Your task to perform on an android device: Open Reddit.com Image 0: 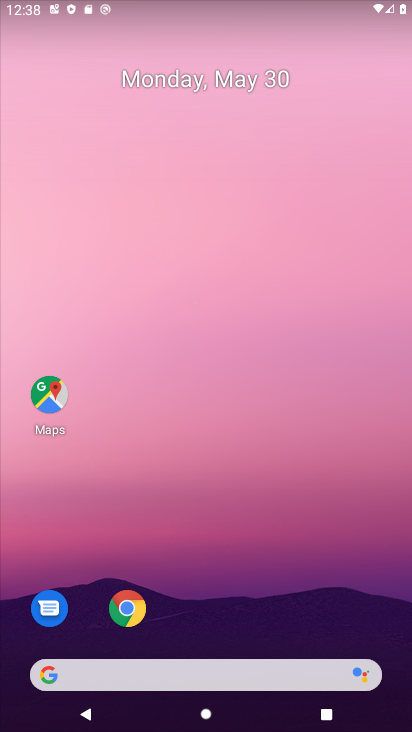
Step 0: click (133, 597)
Your task to perform on an android device: Open Reddit.com Image 1: 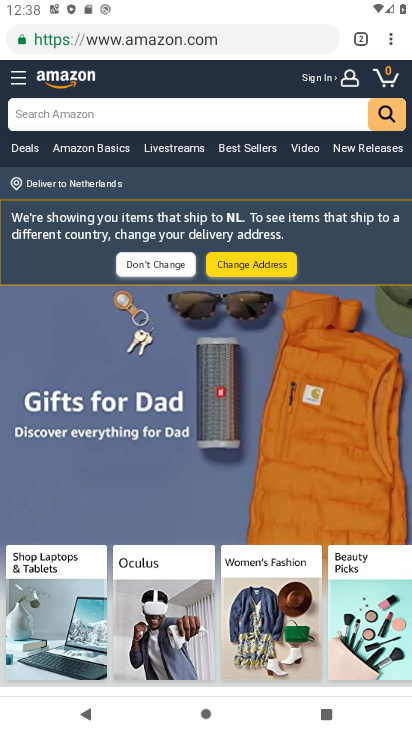
Step 1: click (354, 28)
Your task to perform on an android device: Open Reddit.com Image 2: 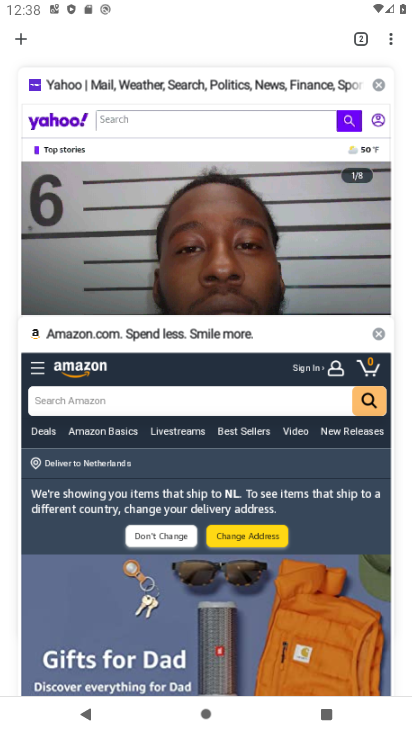
Step 2: click (25, 18)
Your task to perform on an android device: Open Reddit.com Image 3: 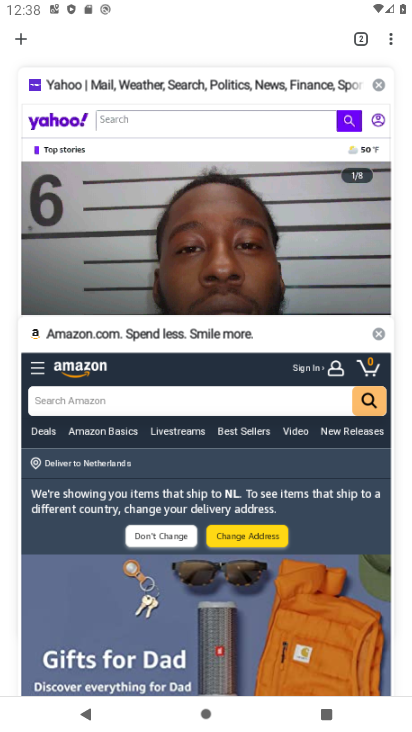
Step 3: click (15, 45)
Your task to perform on an android device: Open Reddit.com Image 4: 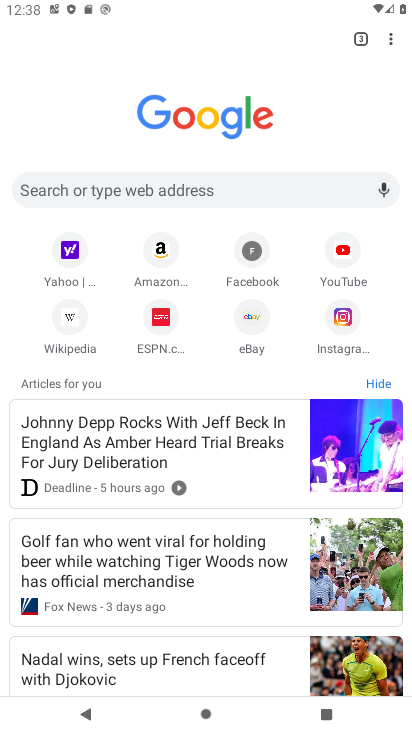
Step 4: click (248, 192)
Your task to perform on an android device: Open Reddit.com Image 5: 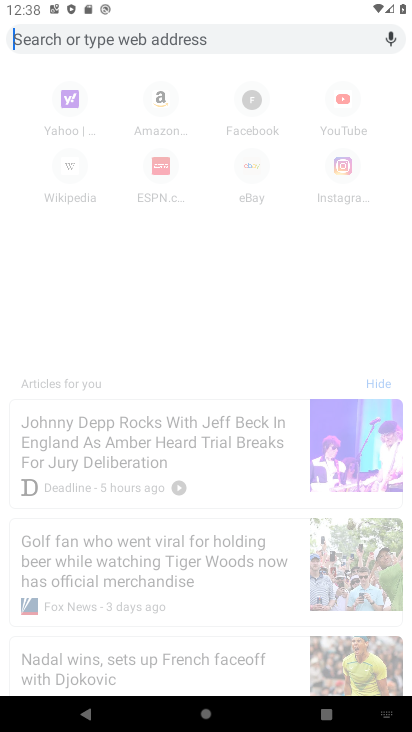
Step 5: type "Reddit.com"
Your task to perform on an android device: Open Reddit.com Image 6: 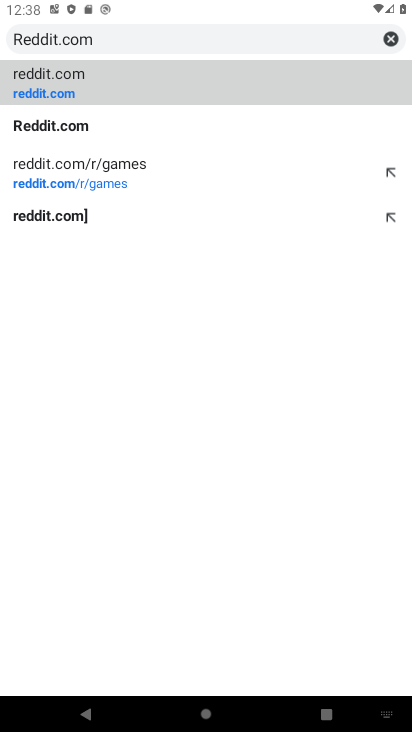
Step 6: click (151, 77)
Your task to perform on an android device: Open Reddit.com Image 7: 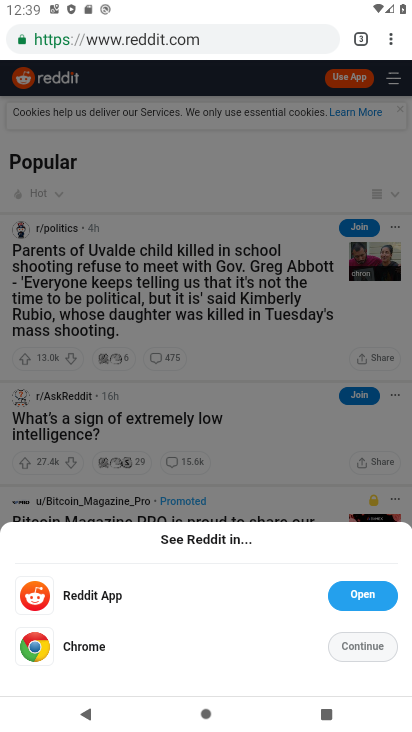
Step 7: click (107, 402)
Your task to perform on an android device: Open Reddit.com Image 8: 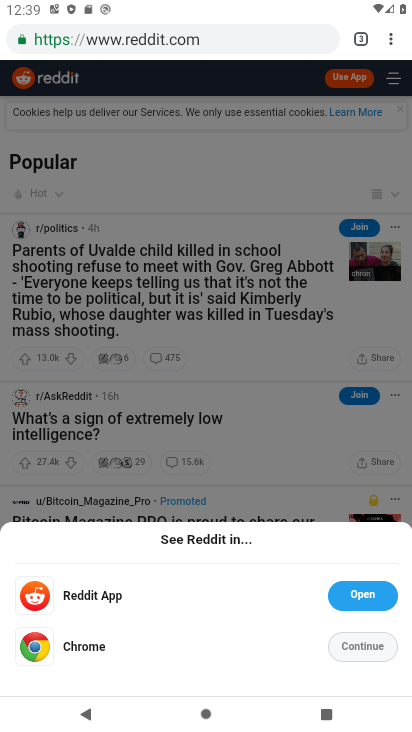
Step 8: click (107, 402)
Your task to perform on an android device: Open Reddit.com Image 9: 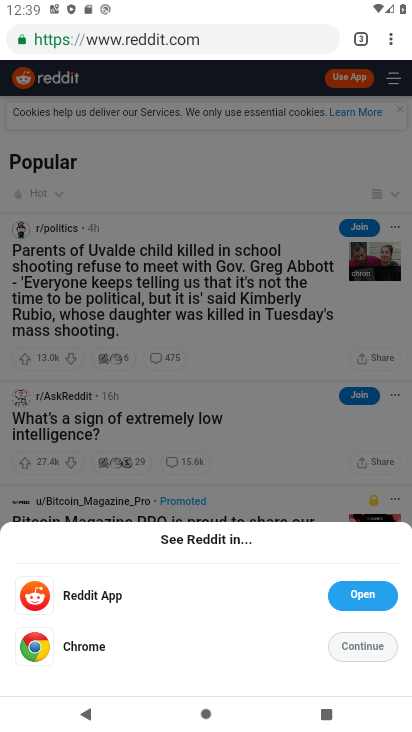
Step 9: drag from (204, 454) to (210, 177)
Your task to perform on an android device: Open Reddit.com Image 10: 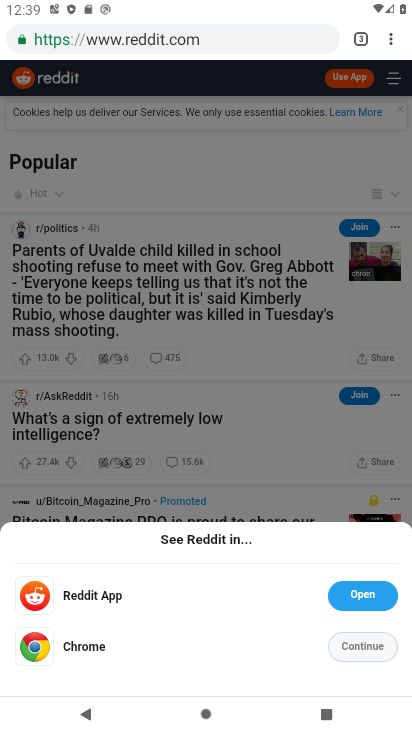
Step 10: press back button
Your task to perform on an android device: Open Reddit.com Image 11: 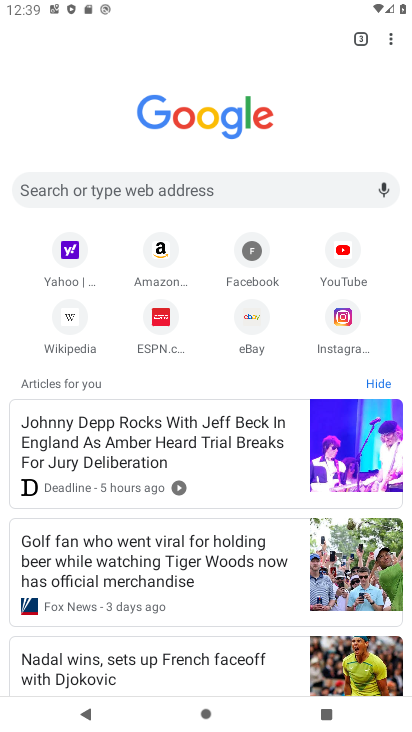
Step 11: click (355, 30)
Your task to perform on an android device: Open Reddit.com Image 12: 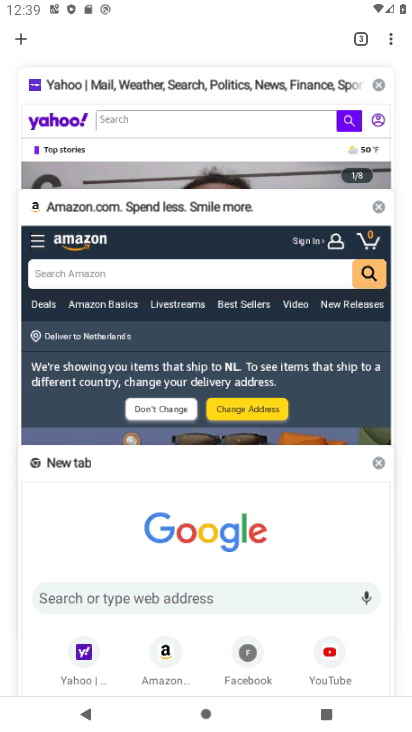
Step 12: click (250, 487)
Your task to perform on an android device: Open Reddit.com Image 13: 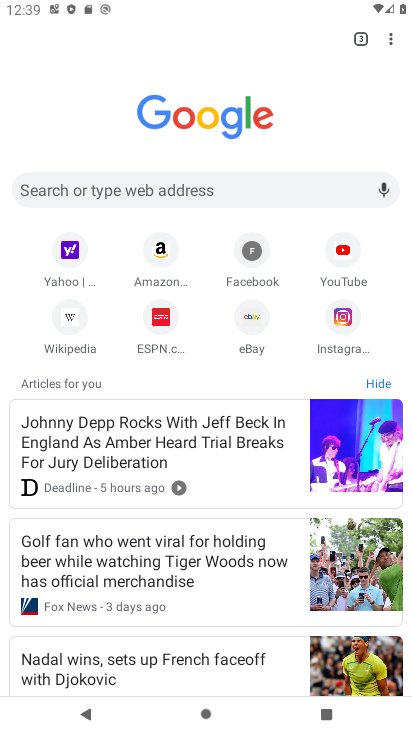
Step 13: click (105, 173)
Your task to perform on an android device: Open Reddit.com Image 14: 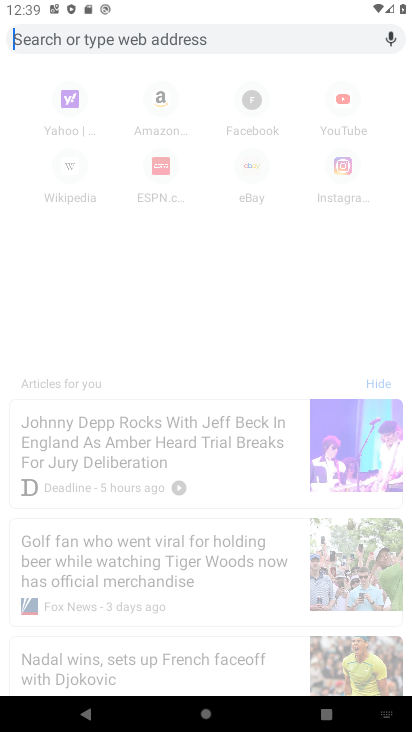
Step 14: type "Reddit.com"
Your task to perform on an android device: Open Reddit.com Image 15: 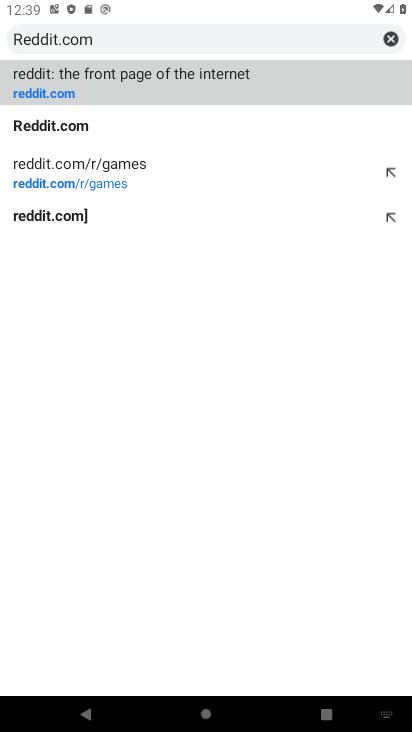
Step 15: click (268, 86)
Your task to perform on an android device: Open Reddit.com Image 16: 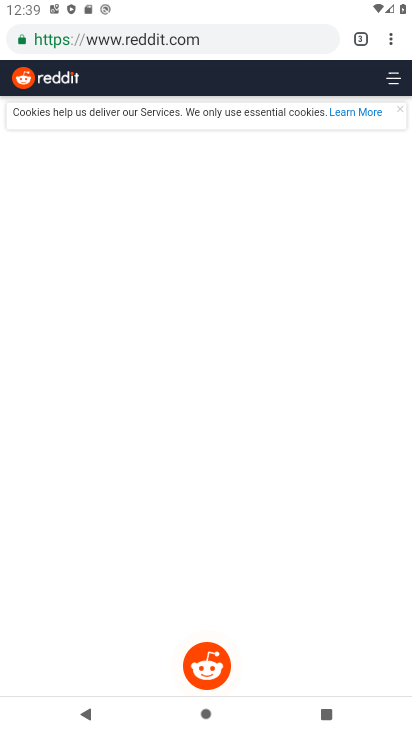
Step 16: drag from (247, 558) to (235, 222)
Your task to perform on an android device: Open Reddit.com Image 17: 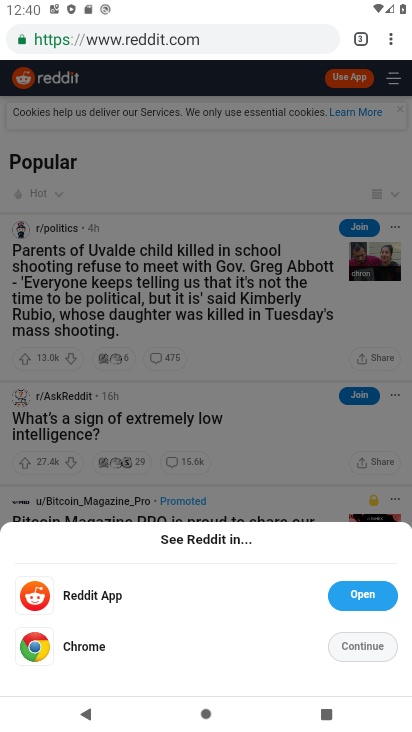
Step 17: click (358, 588)
Your task to perform on an android device: Open Reddit.com Image 18: 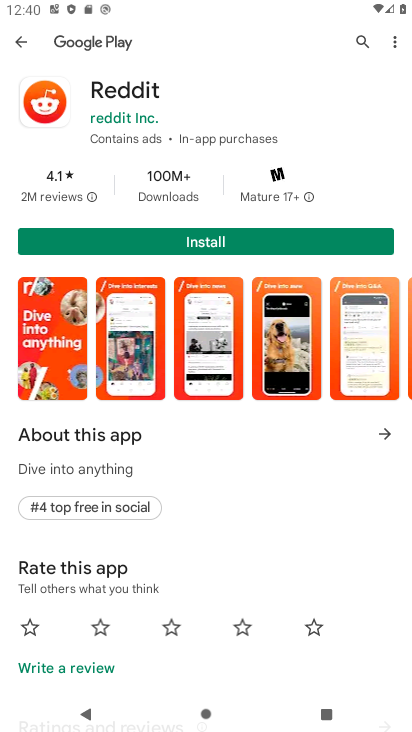
Step 18: press back button
Your task to perform on an android device: Open Reddit.com Image 19: 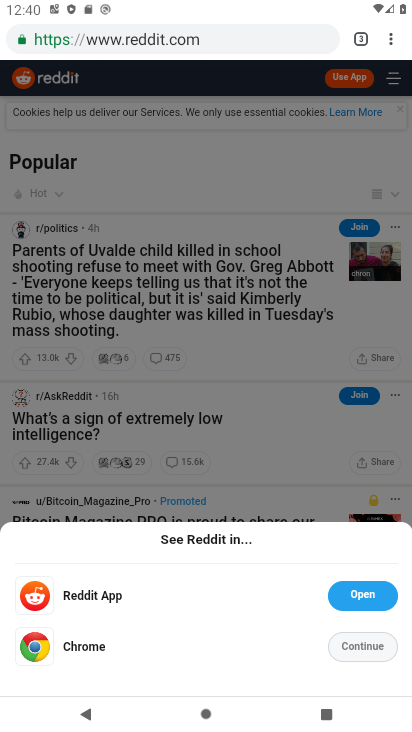
Step 19: click (369, 650)
Your task to perform on an android device: Open Reddit.com Image 20: 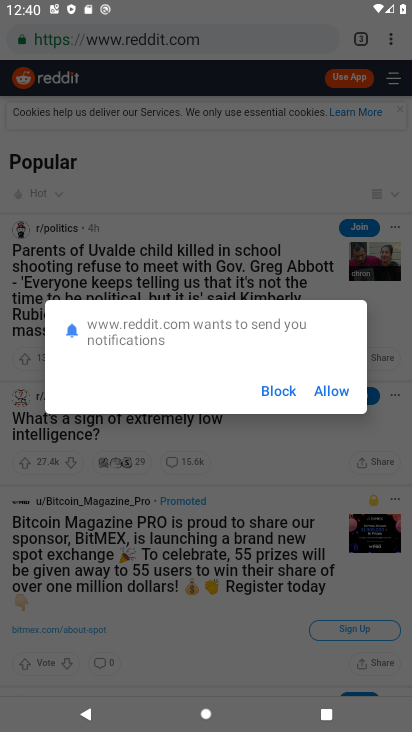
Step 20: click (315, 386)
Your task to perform on an android device: Open Reddit.com Image 21: 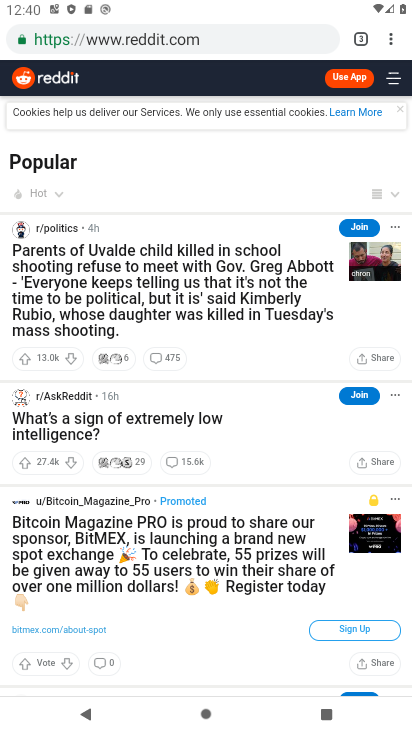
Step 21: task complete